Your task to perform on an android device: check the backup settings in the google photos Image 0: 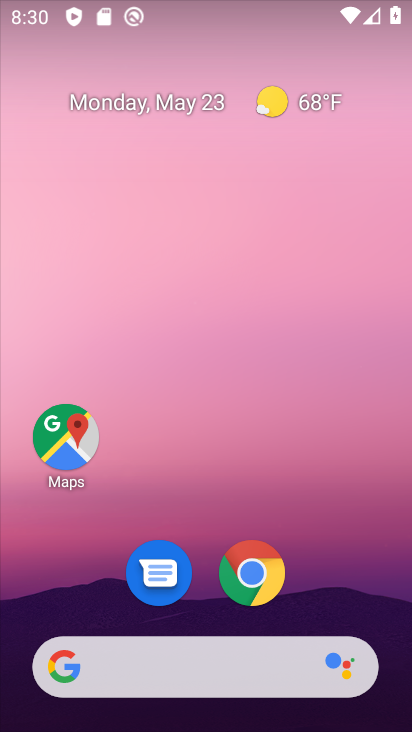
Step 0: drag from (210, 608) to (233, 80)
Your task to perform on an android device: check the backup settings in the google photos Image 1: 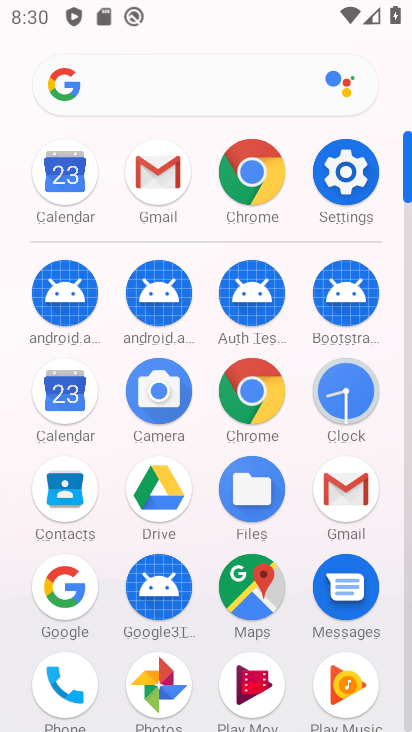
Step 1: click (162, 669)
Your task to perform on an android device: check the backup settings in the google photos Image 2: 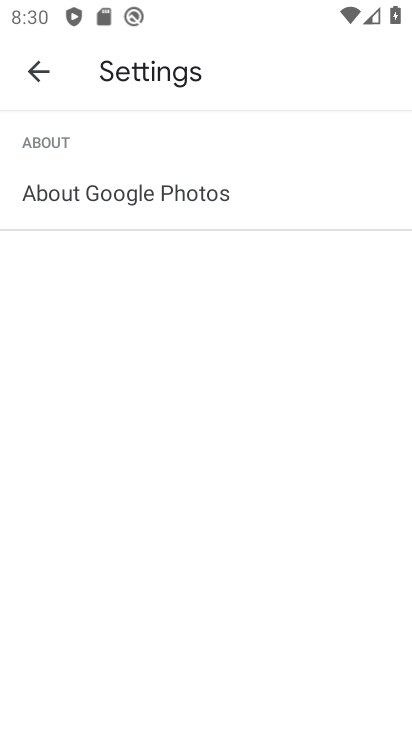
Step 2: click (37, 75)
Your task to perform on an android device: check the backup settings in the google photos Image 3: 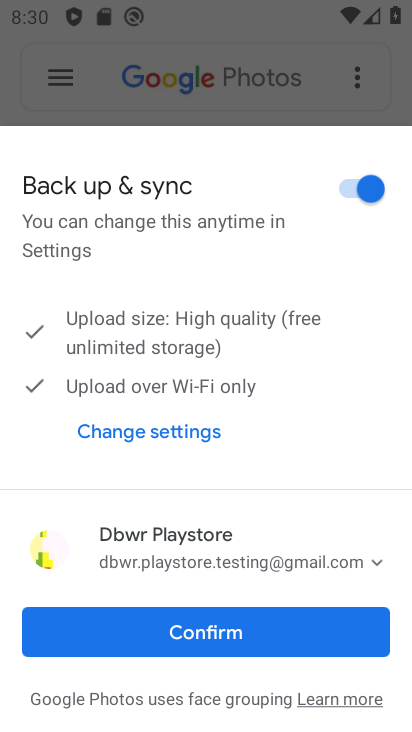
Step 3: click (216, 639)
Your task to perform on an android device: check the backup settings in the google photos Image 4: 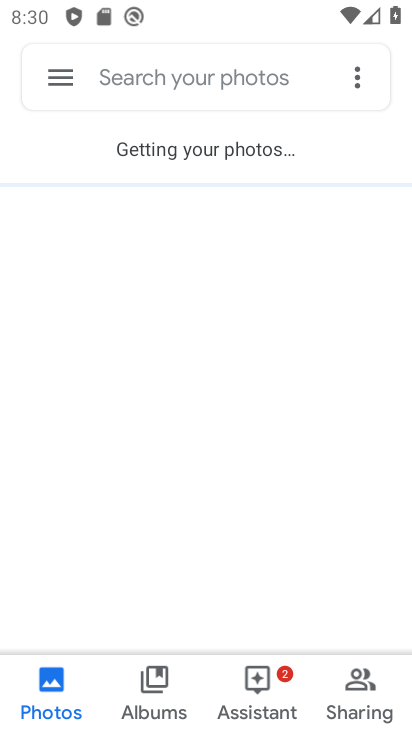
Step 4: click (52, 74)
Your task to perform on an android device: check the backup settings in the google photos Image 5: 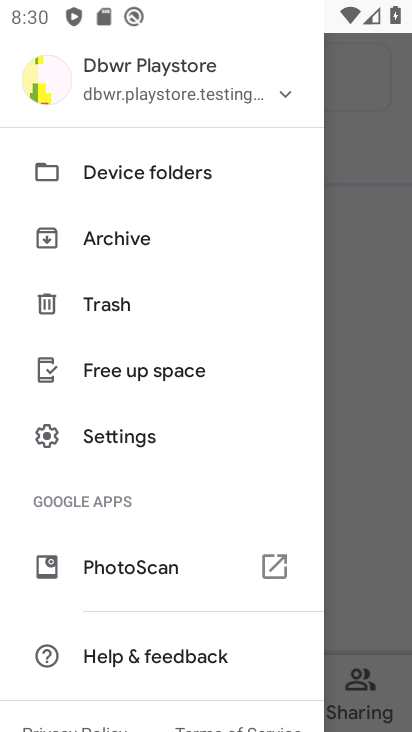
Step 5: click (131, 421)
Your task to perform on an android device: check the backup settings in the google photos Image 6: 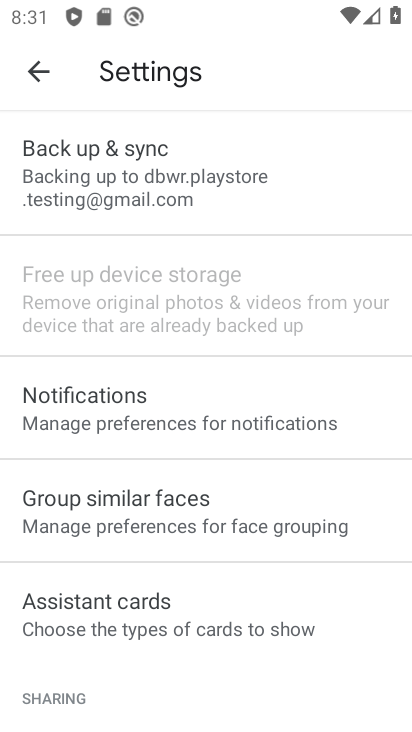
Step 6: click (176, 168)
Your task to perform on an android device: check the backup settings in the google photos Image 7: 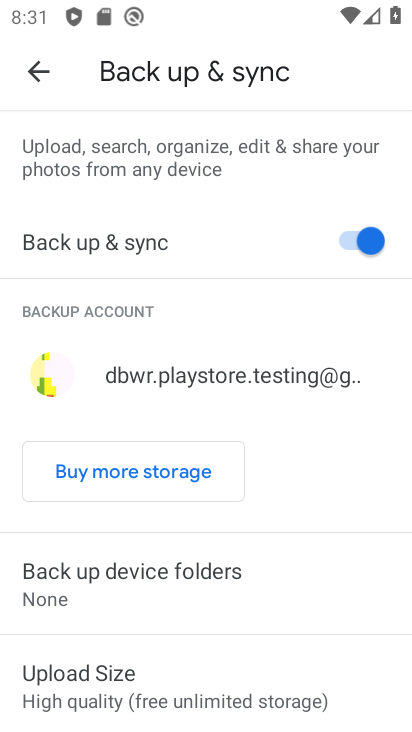
Step 7: task complete